Your task to perform on an android device: Open the stopwatch Image 0: 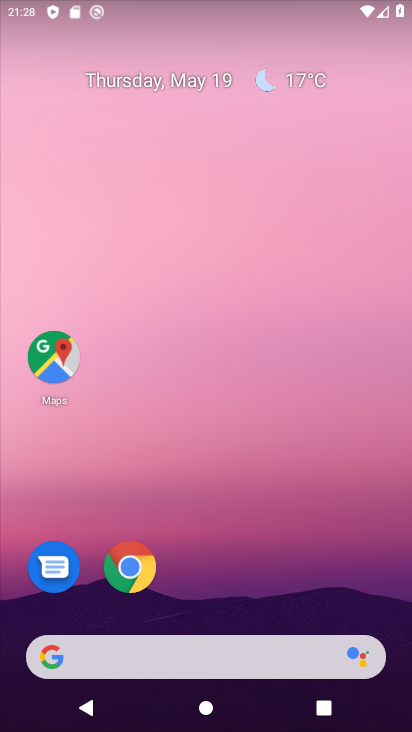
Step 0: drag from (378, 581) to (329, 140)
Your task to perform on an android device: Open the stopwatch Image 1: 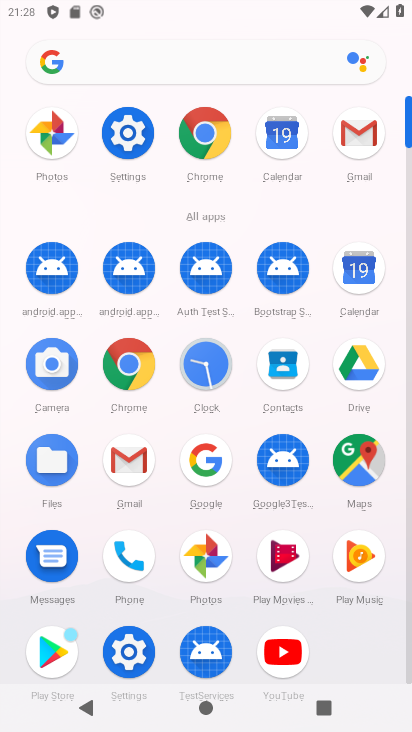
Step 1: click (211, 361)
Your task to perform on an android device: Open the stopwatch Image 2: 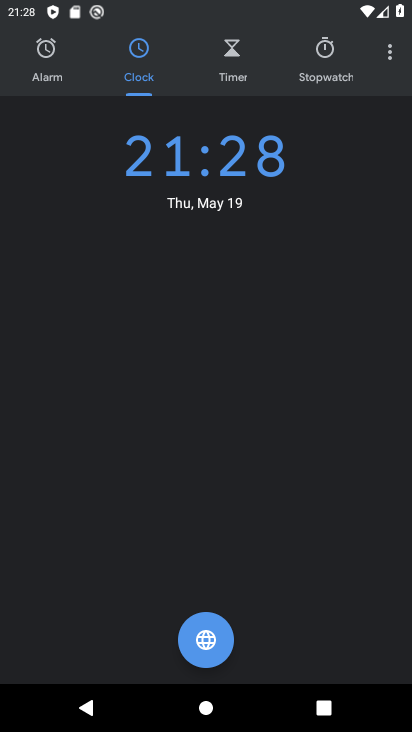
Step 2: click (327, 56)
Your task to perform on an android device: Open the stopwatch Image 3: 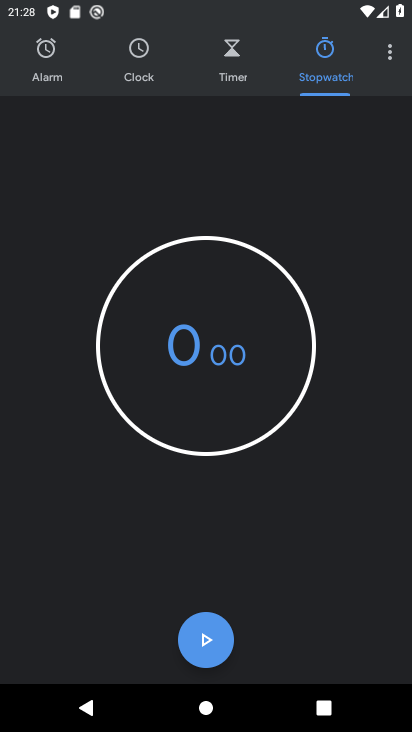
Step 3: task complete